Your task to perform on an android device: refresh tabs in the chrome app Image 0: 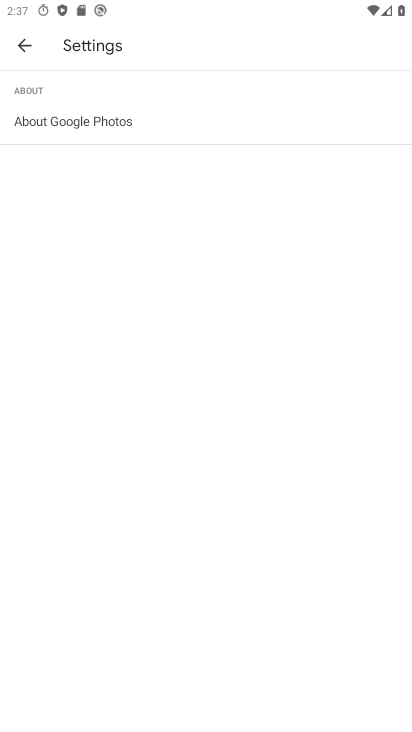
Step 0: press home button
Your task to perform on an android device: refresh tabs in the chrome app Image 1: 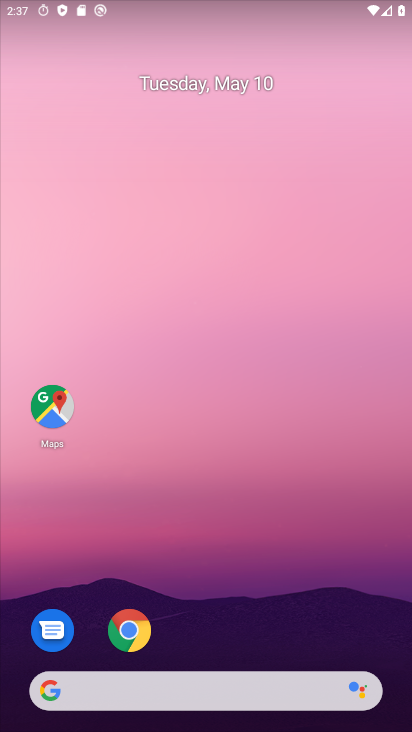
Step 1: drag from (251, 587) to (374, 82)
Your task to perform on an android device: refresh tabs in the chrome app Image 2: 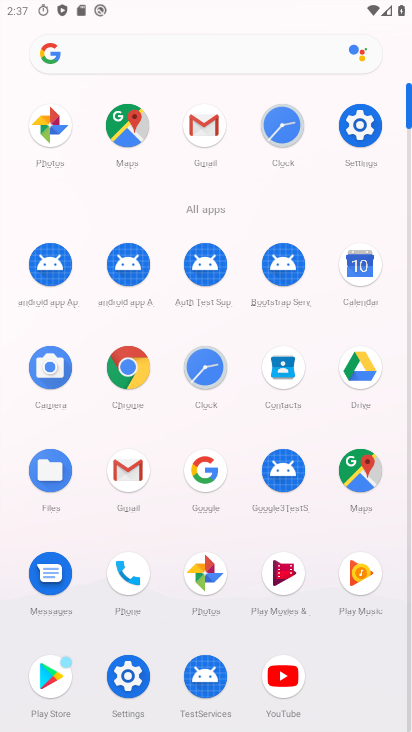
Step 2: click (118, 368)
Your task to perform on an android device: refresh tabs in the chrome app Image 3: 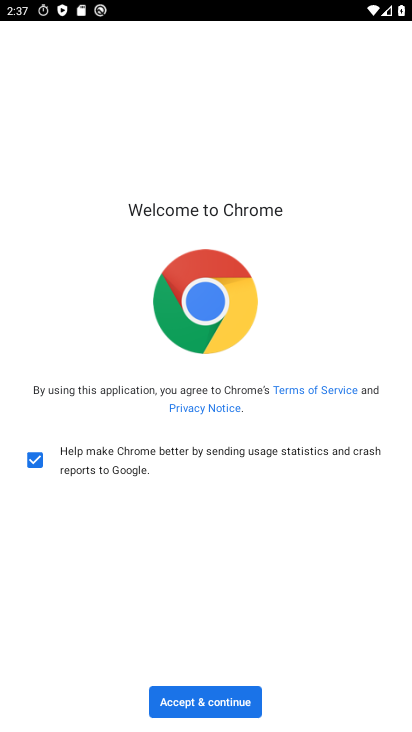
Step 3: click (194, 699)
Your task to perform on an android device: refresh tabs in the chrome app Image 4: 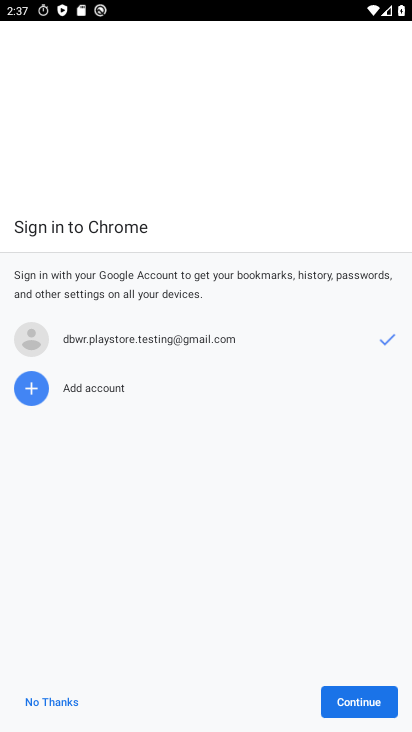
Step 4: click (354, 703)
Your task to perform on an android device: refresh tabs in the chrome app Image 5: 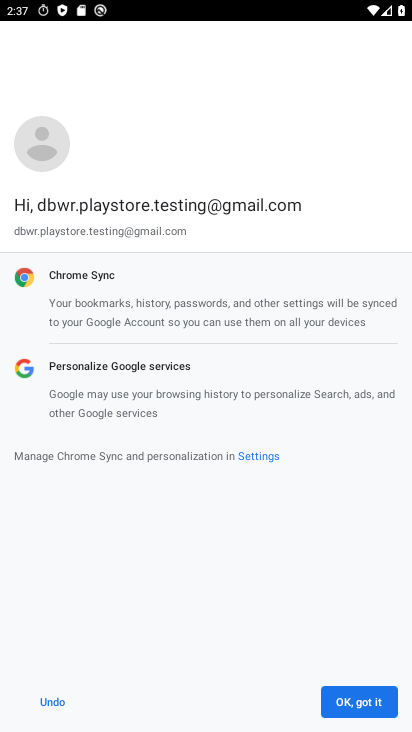
Step 5: click (354, 702)
Your task to perform on an android device: refresh tabs in the chrome app Image 6: 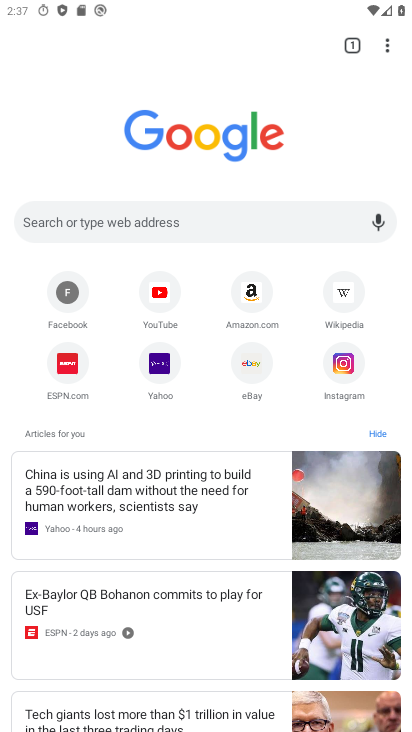
Step 6: click (385, 40)
Your task to perform on an android device: refresh tabs in the chrome app Image 7: 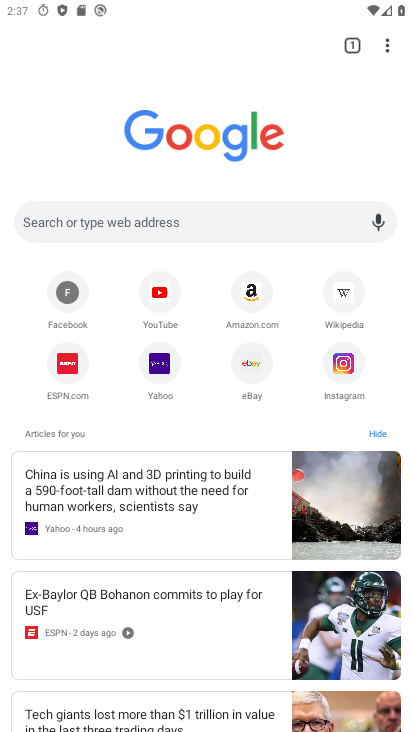
Step 7: click (390, 45)
Your task to perform on an android device: refresh tabs in the chrome app Image 8: 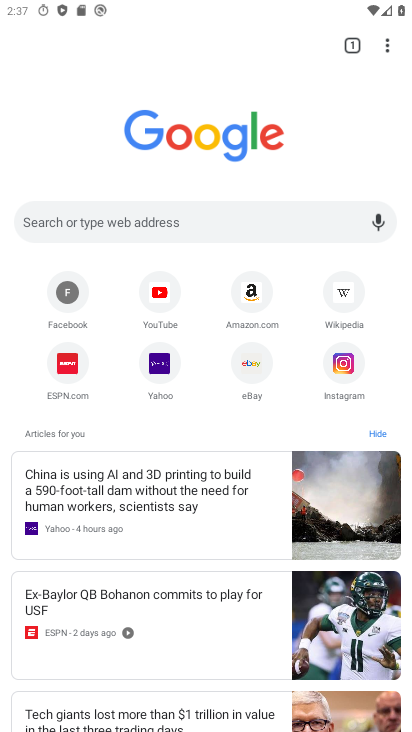
Step 8: click (384, 40)
Your task to perform on an android device: refresh tabs in the chrome app Image 9: 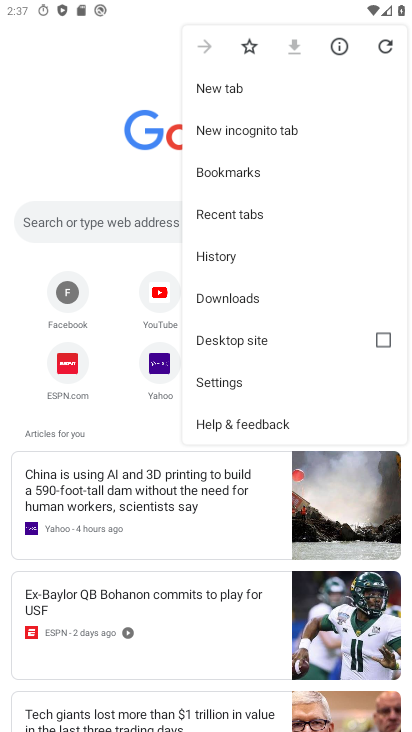
Step 9: click (265, 206)
Your task to perform on an android device: refresh tabs in the chrome app Image 10: 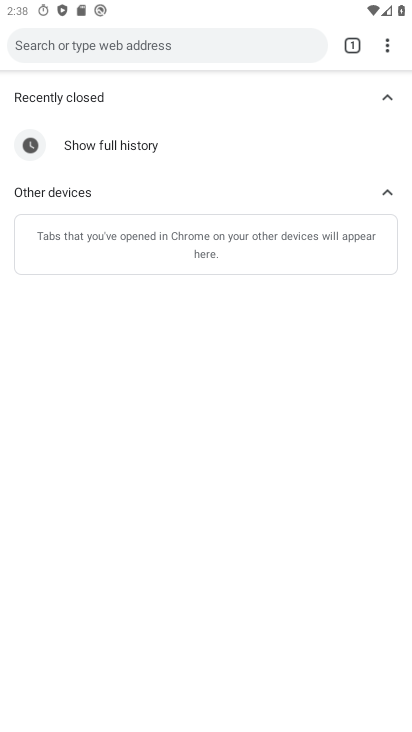
Step 10: click (345, 149)
Your task to perform on an android device: refresh tabs in the chrome app Image 11: 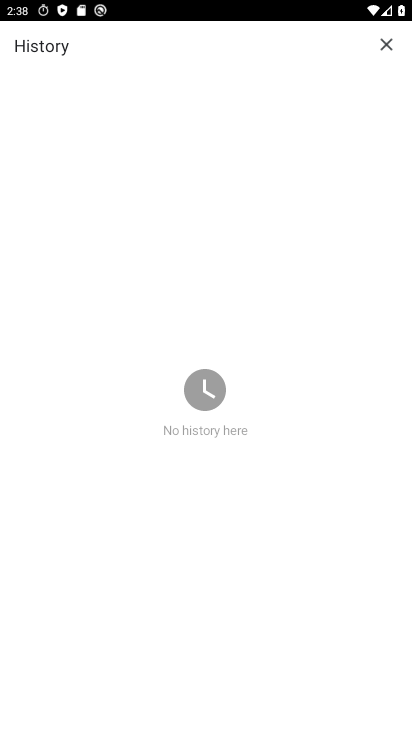
Step 11: task complete